Your task to perform on an android device: change your default location settings in chrome Image 0: 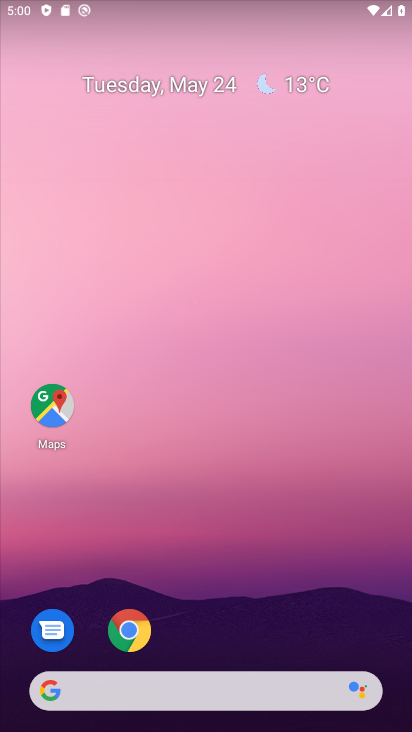
Step 0: drag from (191, 601) to (184, 537)
Your task to perform on an android device: change your default location settings in chrome Image 1: 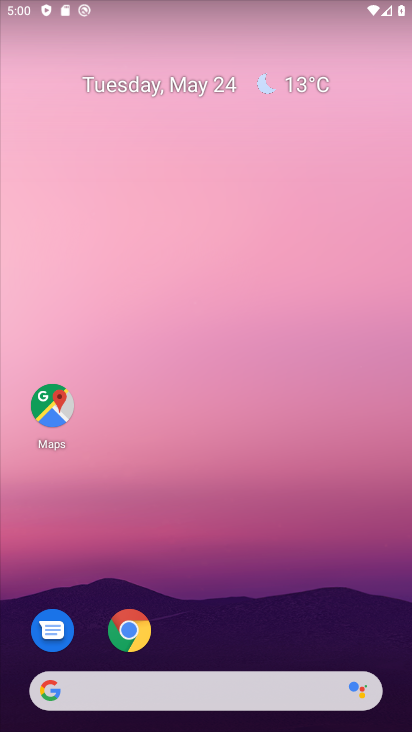
Step 1: click (127, 636)
Your task to perform on an android device: change your default location settings in chrome Image 2: 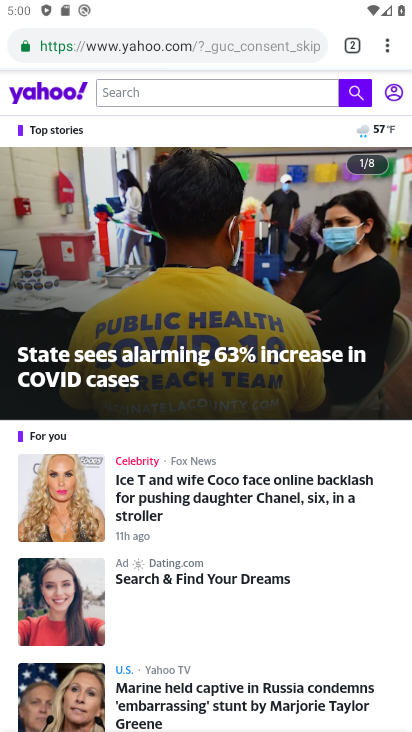
Step 2: click (390, 42)
Your task to perform on an android device: change your default location settings in chrome Image 3: 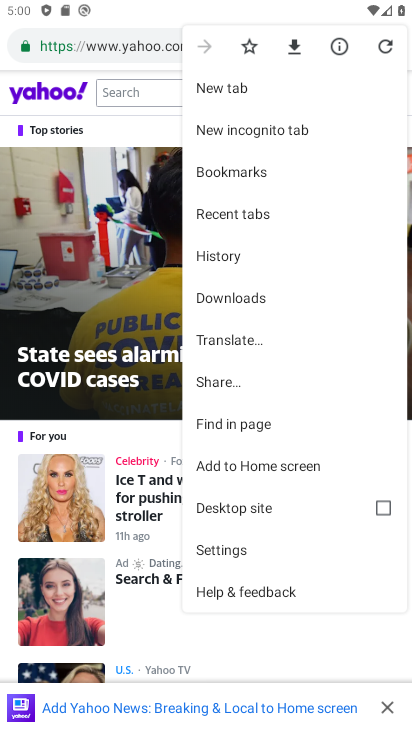
Step 3: click (232, 552)
Your task to perform on an android device: change your default location settings in chrome Image 4: 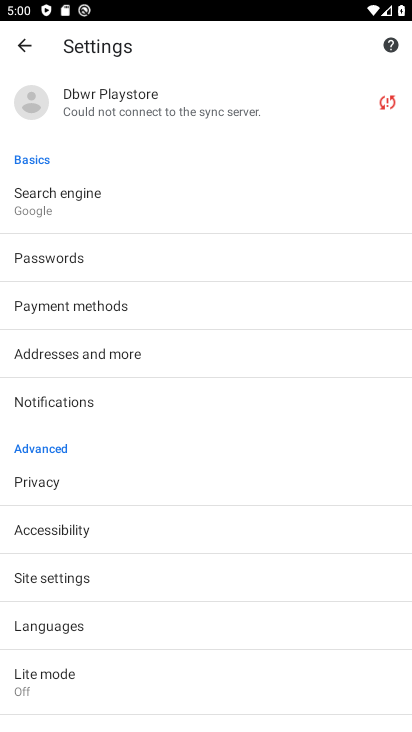
Step 4: click (64, 579)
Your task to perform on an android device: change your default location settings in chrome Image 5: 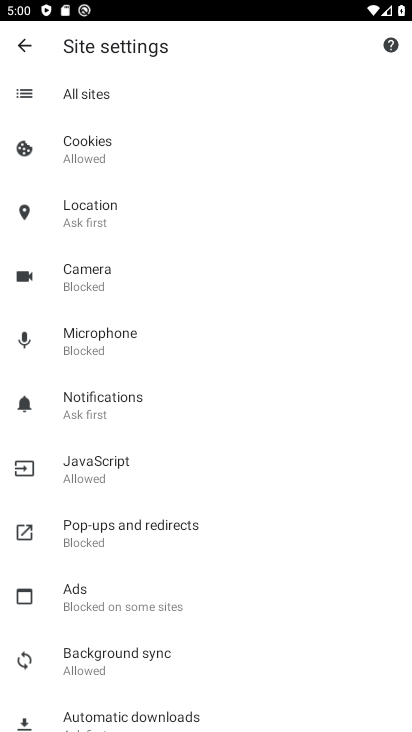
Step 5: click (98, 223)
Your task to perform on an android device: change your default location settings in chrome Image 6: 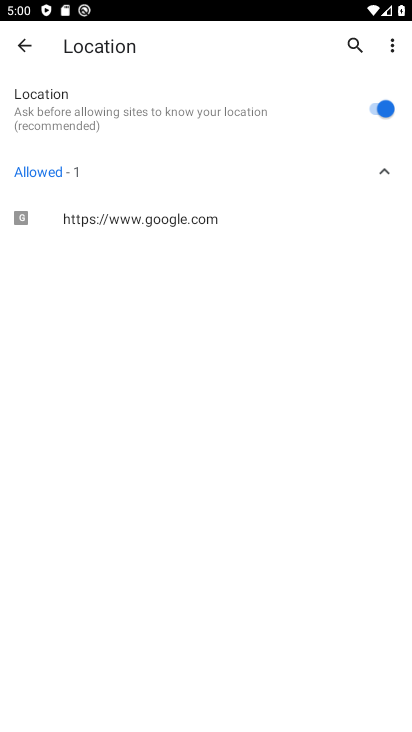
Step 6: click (368, 115)
Your task to perform on an android device: change your default location settings in chrome Image 7: 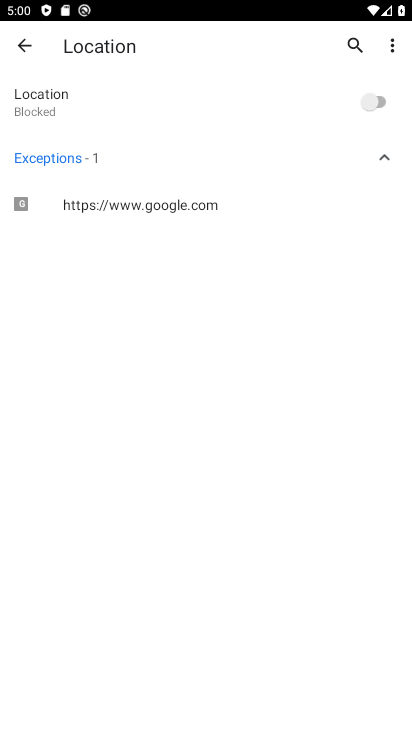
Step 7: task complete